Your task to perform on an android device: open the mobile data screen to see how much data has been used Image 0: 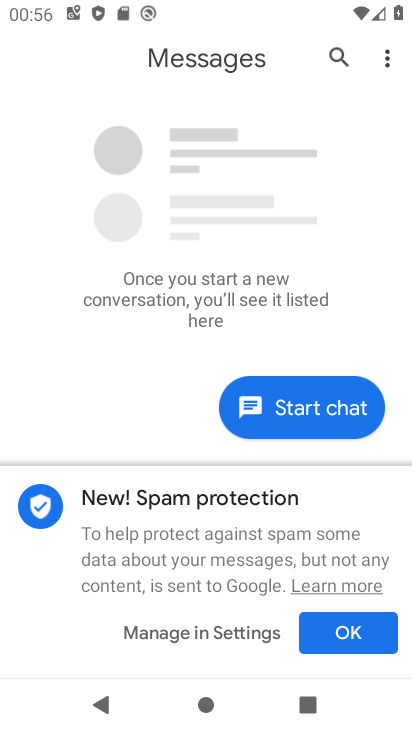
Step 0: press home button
Your task to perform on an android device: open the mobile data screen to see how much data has been used Image 1: 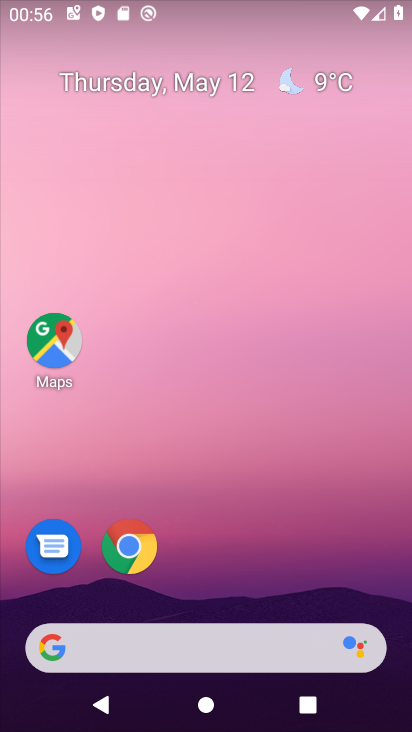
Step 1: drag from (168, 551) to (184, 1)
Your task to perform on an android device: open the mobile data screen to see how much data has been used Image 2: 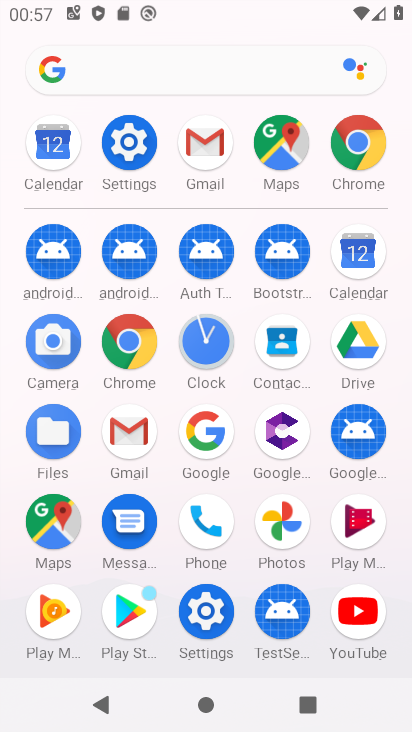
Step 2: click (135, 143)
Your task to perform on an android device: open the mobile data screen to see how much data has been used Image 3: 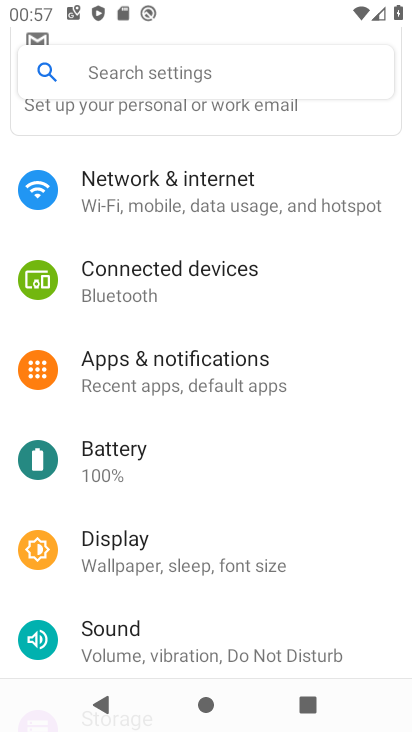
Step 3: click (145, 212)
Your task to perform on an android device: open the mobile data screen to see how much data has been used Image 4: 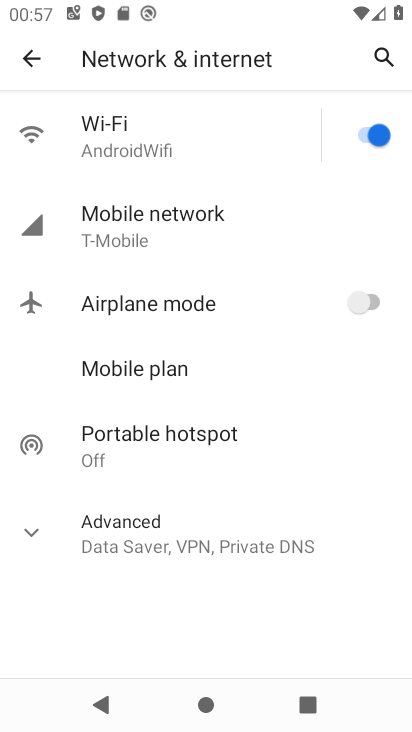
Step 4: click (139, 233)
Your task to perform on an android device: open the mobile data screen to see how much data has been used Image 5: 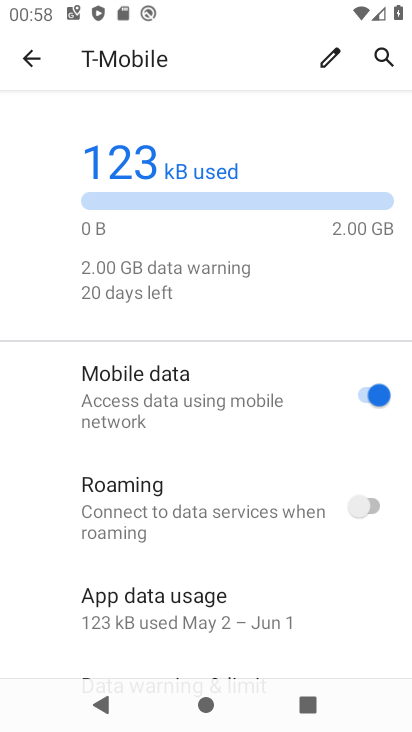
Step 5: task complete